Your task to perform on an android device: Open Yahoo.com Image 0: 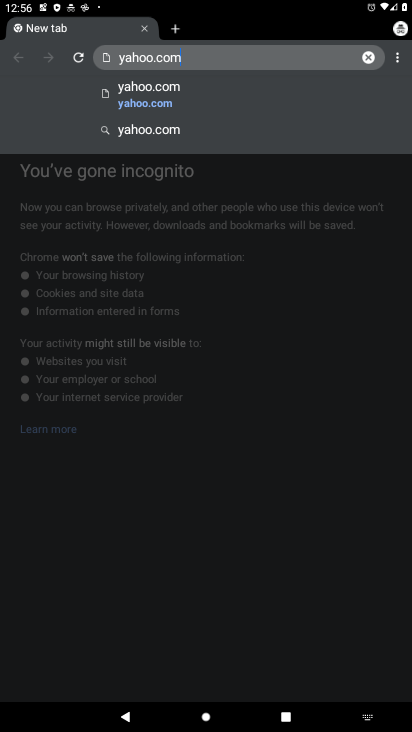
Step 0: click (260, 113)
Your task to perform on an android device: Open Yahoo.com Image 1: 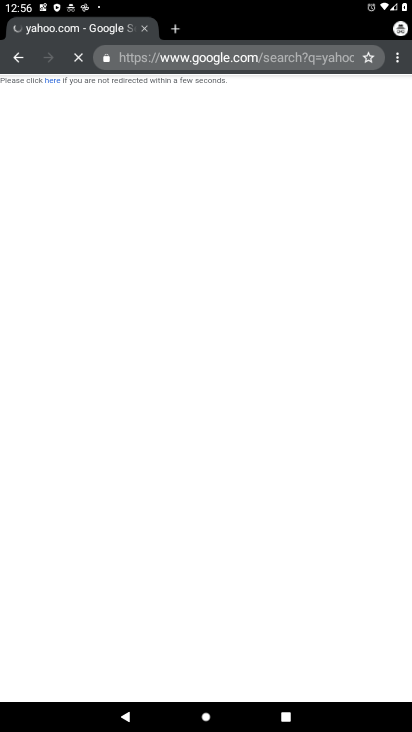
Step 1: task complete